Your task to perform on an android device: toggle improve location accuracy Image 0: 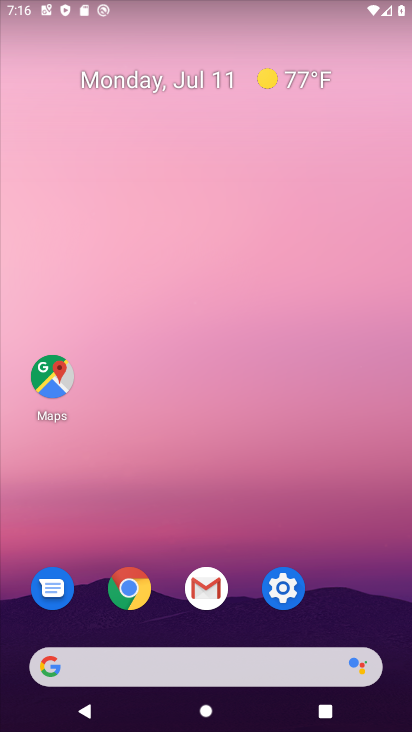
Step 0: drag from (242, 671) to (248, 234)
Your task to perform on an android device: toggle improve location accuracy Image 1: 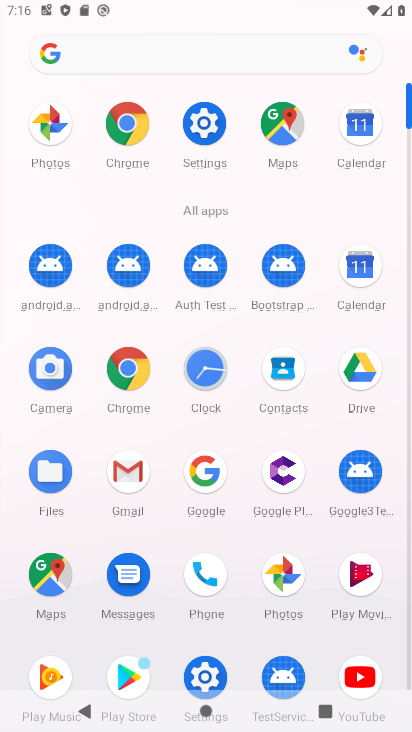
Step 1: click (193, 123)
Your task to perform on an android device: toggle improve location accuracy Image 2: 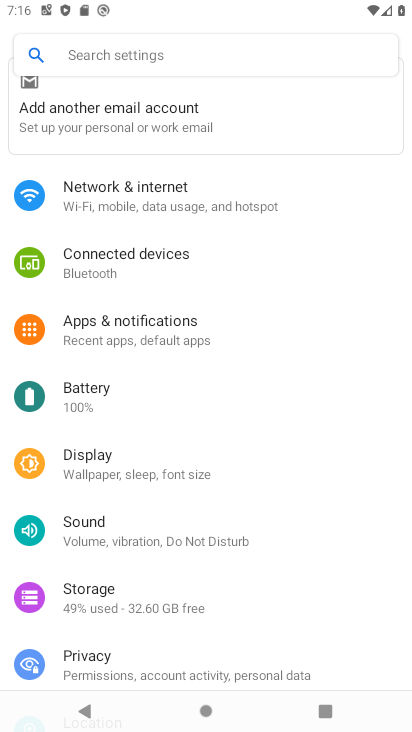
Step 2: drag from (141, 596) to (157, 467)
Your task to perform on an android device: toggle improve location accuracy Image 3: 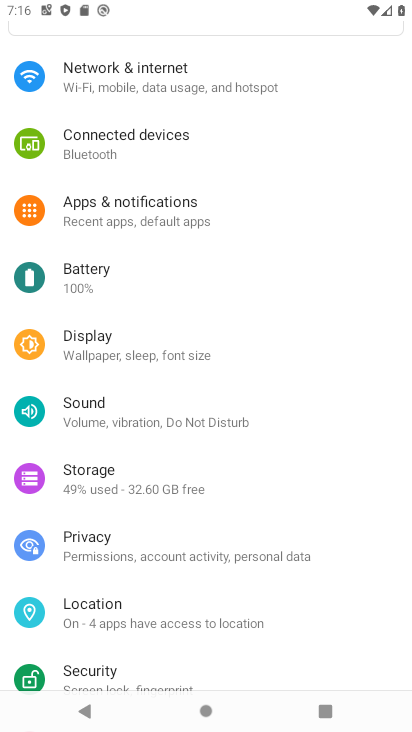
Step 3: click (154, 597)
Your task to perform on an android device: toggle improve location accuracy Image 4: 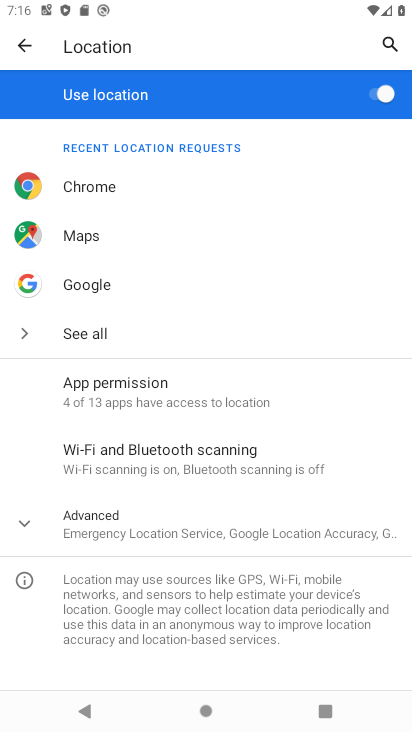
Step 4: click (66, 514)
Your task to perform on an android device: toggle improve location accuracy Image 5: 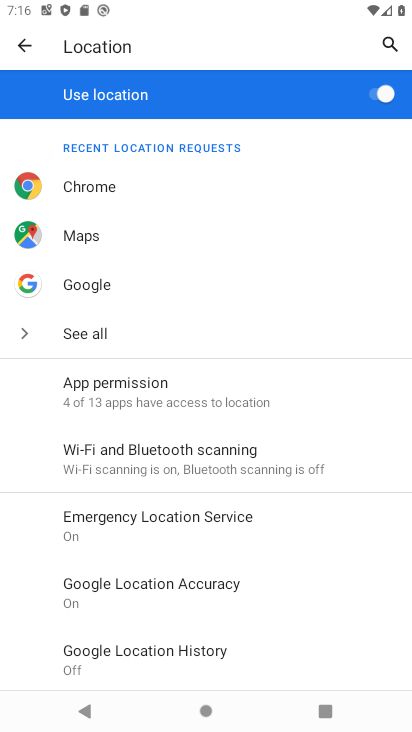
Step 5: click (192, 585)
Your task to perform on an android device: toggle improve location accuracy Image 6: 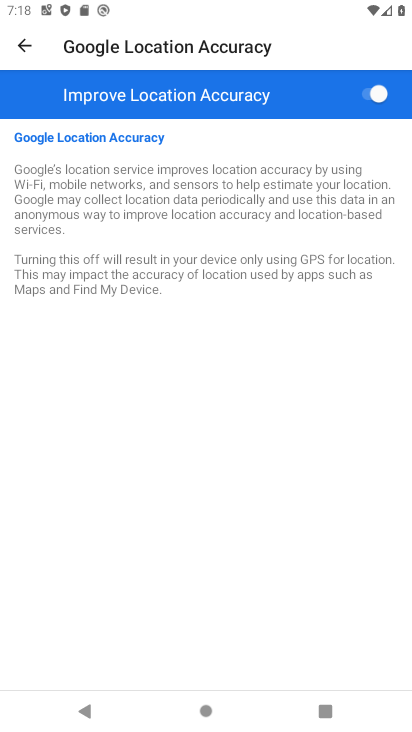
Step 6: task complete